Your task to perform on an android device: turn off wifi Image 0: 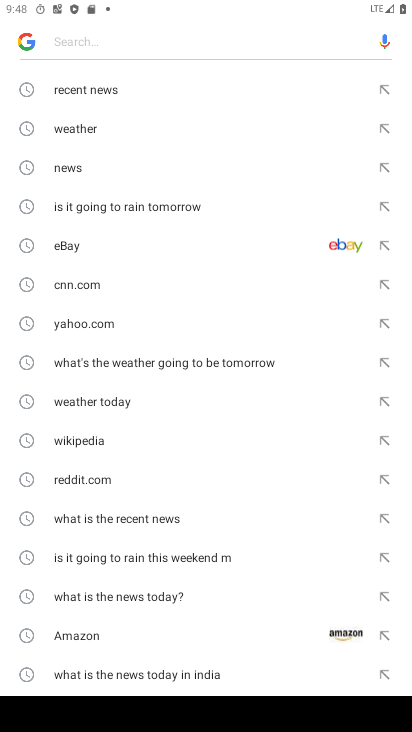
Step 0: press back button
Your task to perform on an android device: turn off wifi Image 1: 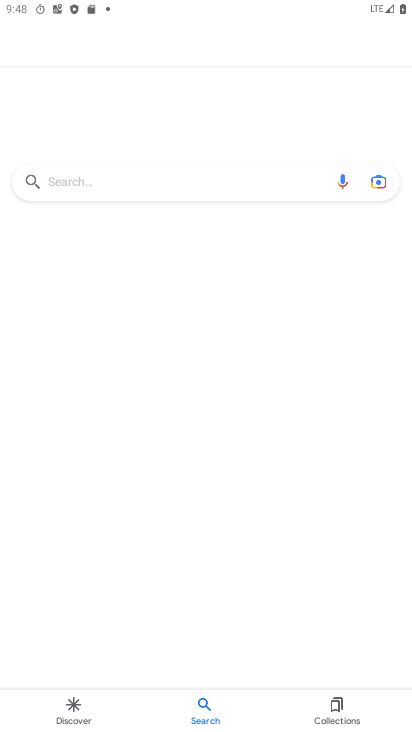
Step 1: press back button
Your task to perform on an android device: turn off wifi Image 2: 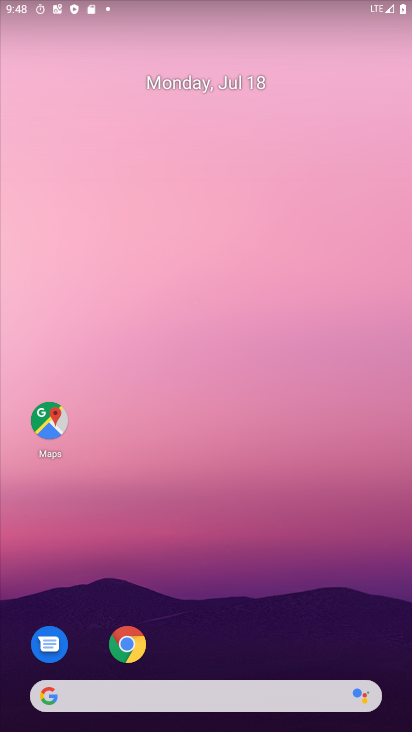
Step 2: drag from (215, 661) to (360, 163)
Your task to perform on an android device: turn off wifi Image 3: 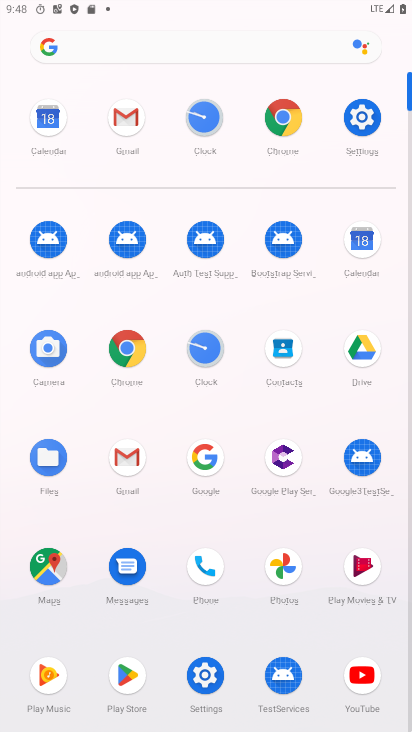
Step 3: click (365, 114)
Your task to perform on an android device: turn off wifi Image 4: 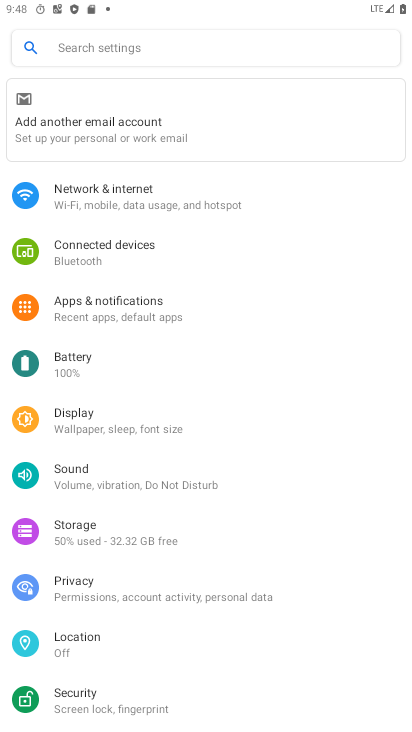
Step 4: click (138, 215)
Your task to perform on an android device: turn off wifi Image 5: 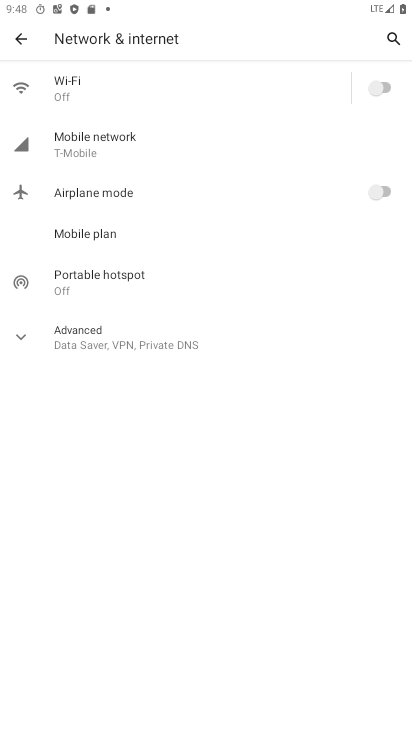
Step 5: click (40, 82)
Your task to perform on an android device: turn off wifi Image 6: 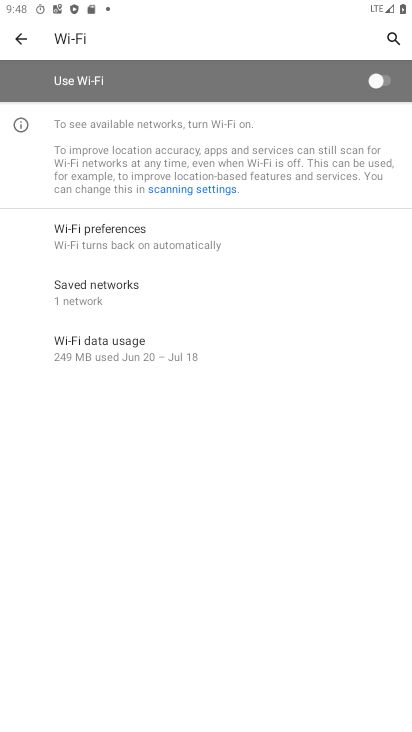
Step 6: task complete